Your task to perform on an android device: Open Google Maps and go to "Timeline" Image 0: 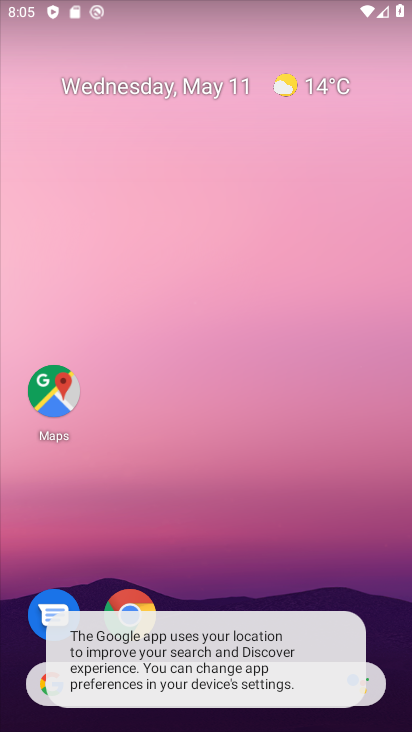
Step 0: click (70, 389)
Your task to perform on an android device: Open Google Maps and go to "Timeline" Image 1: 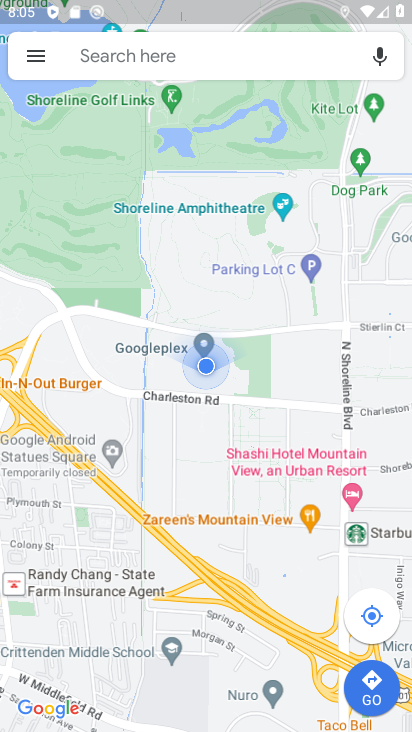
Step 1: click (37, 66)
Your task to perform on an android device: Open Google Maps and go to "Timeline" Image 2: 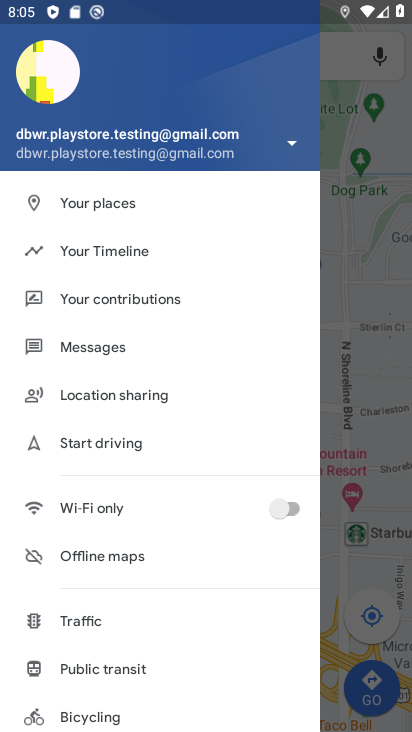
Step 2: click (136, 246)
Your task to perform on an android device: Open Google Maps and go to "Timeline" Image 3: 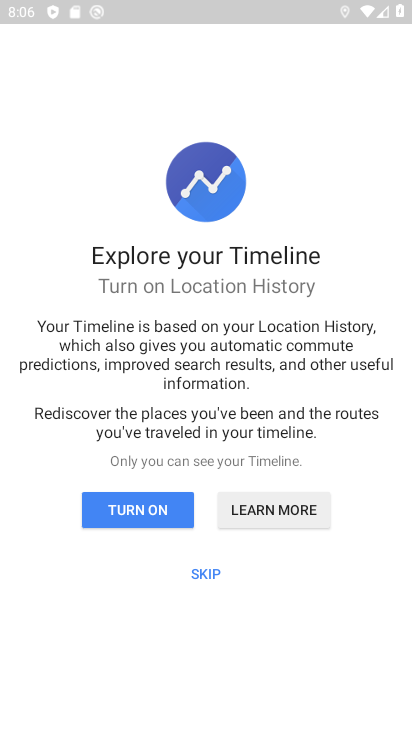
Step 3: click (199, 572)
Your task to perform on an android device: Open Google Maps and go to "Timeline" Image 4: 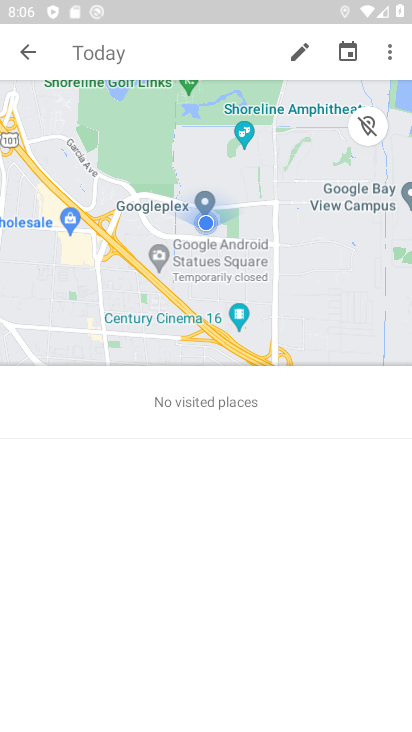
Step 4: task complete